Your task to perform on an android device: show emergency info Image 0: 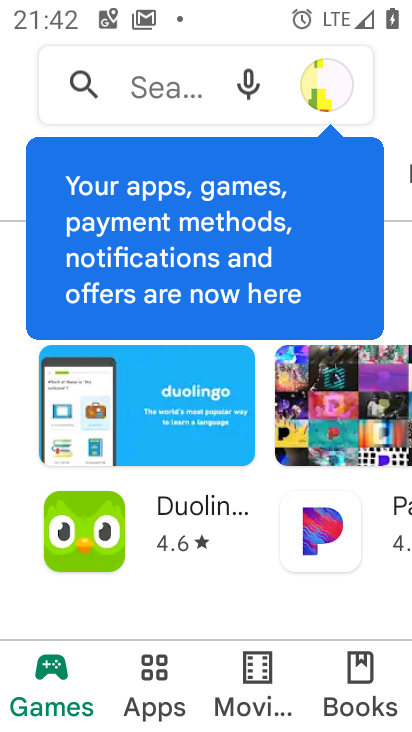
Step 0: press home button
Your task to perform on an android device: show emergency info Image 1: 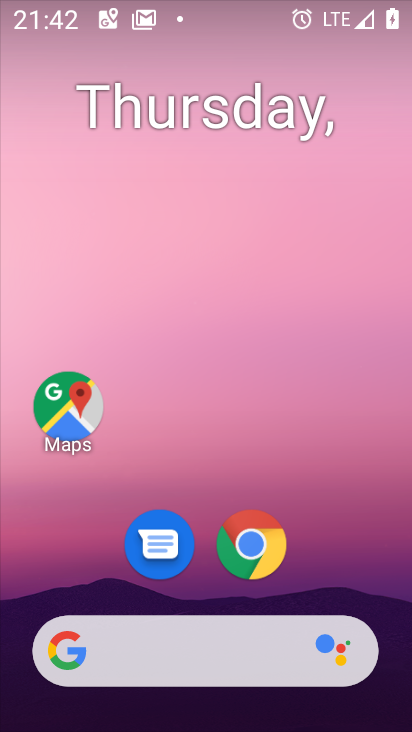
Step 1: drag from (207, 579) to (218, 222)
Your task to perform on an android device: show emergency info Image 2: 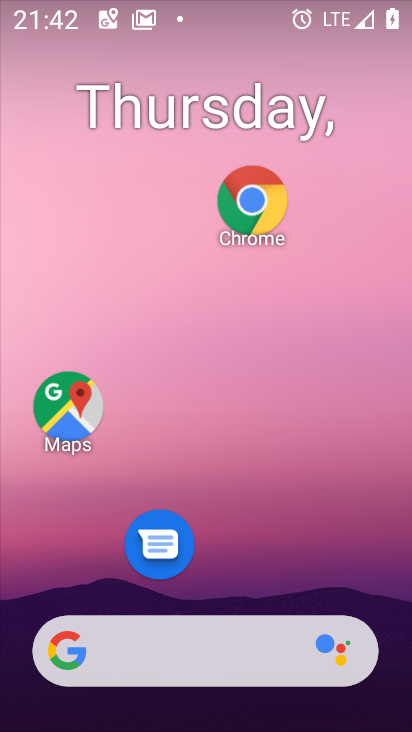
Step 2: drag from (234, 548) to (256, 43)
Your task to perform on an android device: show emergency info Image 3: 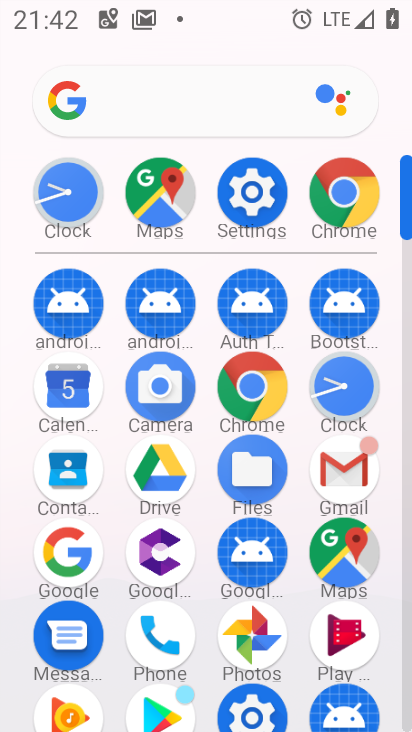
Step 3: click (269, 169)
Your task to perform on an android device: show emergency info Image 4: 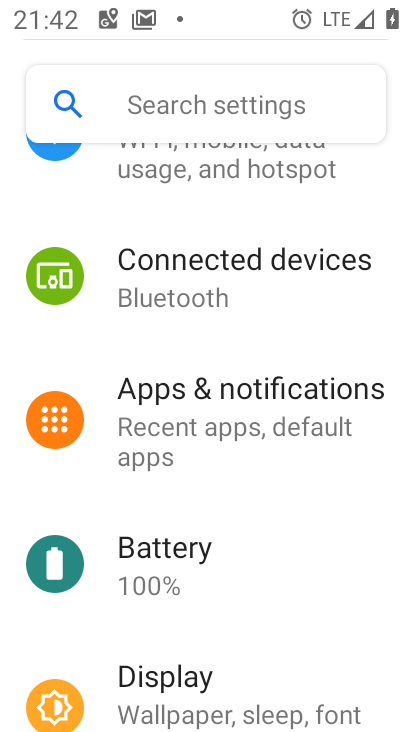
Step 4: drag from (121, 654) to (201, 91)
Your task to perform on an android device: show emergency info Image 5: 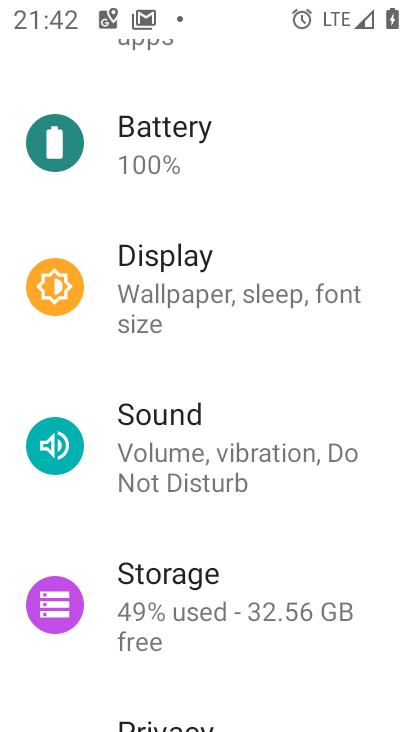
Step 5: drag from (91, 693) to (162, 214)
Your task to perform on an android device: show emergency info Image 6: 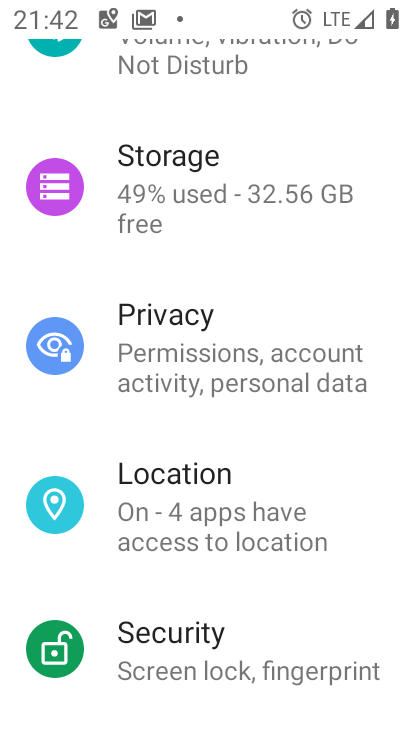
Step 6: drag from (119, 595) to (328, 30)
Your task to perform on an android device: show emergency info Image 7: 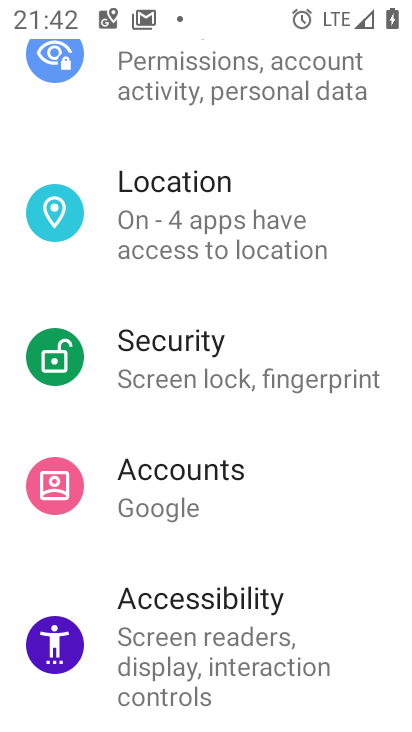
Step 7: drag from (230, 703) to (217, 270)
Your task to perform on an android device: show emergency info Image 8: 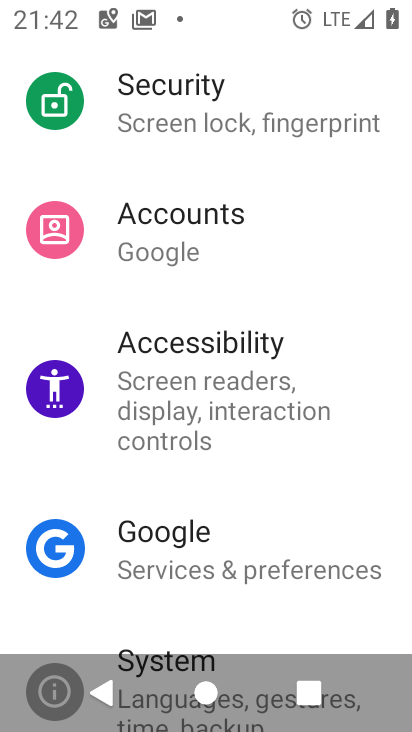
Step 8: drag from (190, 600) to (244, 104)
Your task to perform on an android device: show emergency info Image 9: 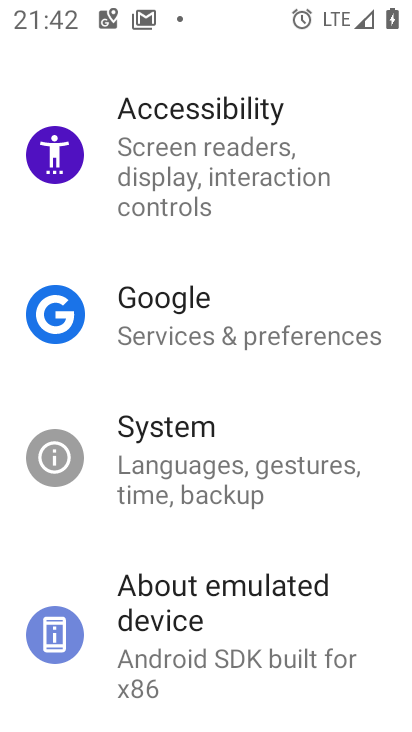
Step 9: click (196, 593)
Your task to perform on an android device: show emergency info Image 10: 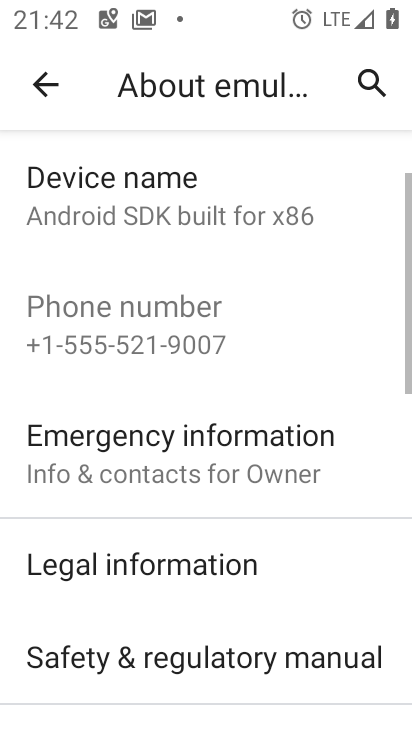
Step 10: click (93, 498)
Your task to perform on an android device: show emergency info Image 11: 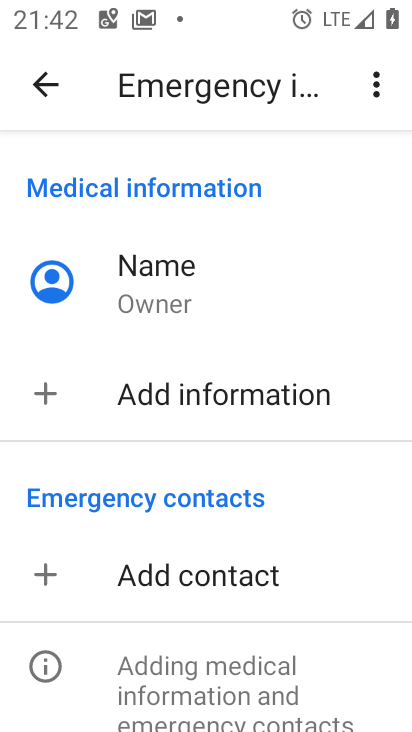
Step 11: task complete